Your task to perform on an android device: turn on the 12-hour format for clock Image 0: 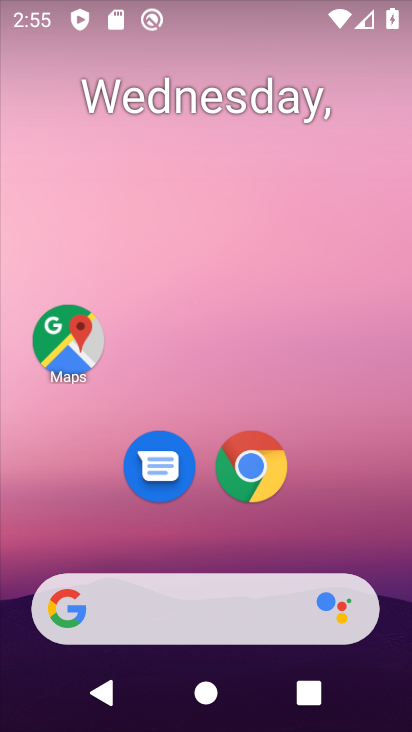
Step 0: drag from (243, 538) to (256, 11)
Your task to perform on an android device: turn on the 12-hour format for clock Image 1: 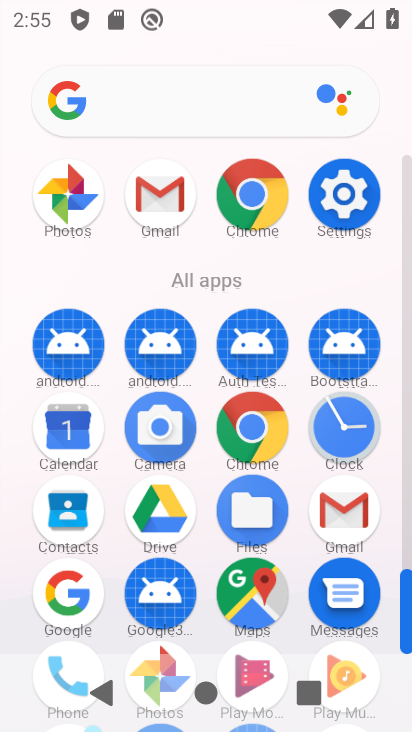
Step 1: click (354, 416)
Your task to perform on an android device: turn on the 12-hour format for clock Image 2: 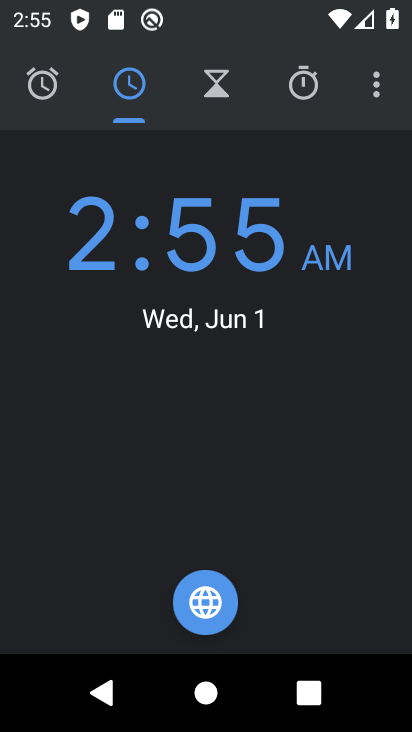
Step 2: click (366, 88)
Your task to perform on an android device: turn on the 12-hour format for clock Image 3: 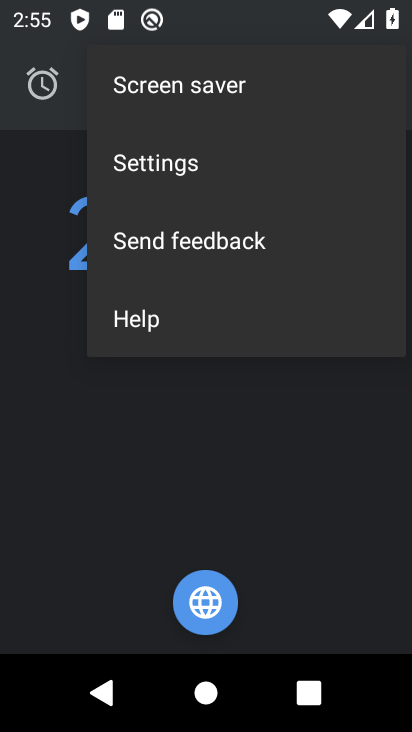
Step 3: click (197, 155)
Your task to perform on an android device: turn on the 12-hour format for clock Image 4: 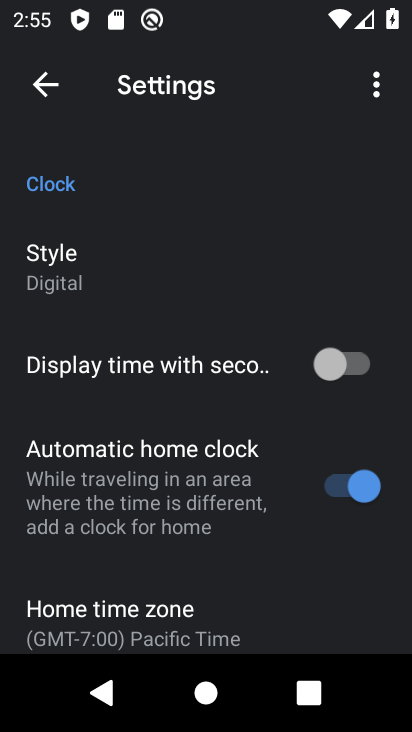
Step 4: drag from (222, 551) to (207, 226)
Your task to perform on an android device: turn on the 12-hour format for clock Image 5: 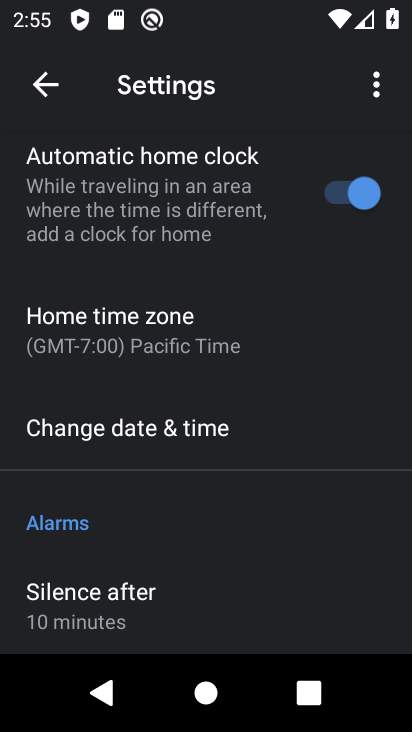
Step 5: click (250, 422)
Your task to perform on an android device: turn on the 12-hour format for clock Image 6: 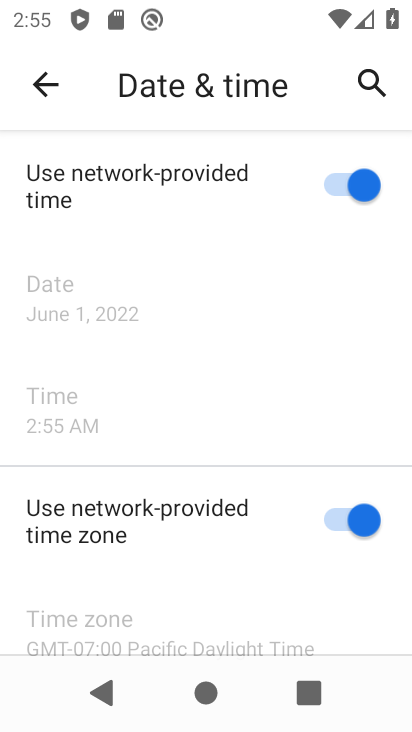
Step 6: task complete